Your task to perform on an android device: Go to Google Image 0: 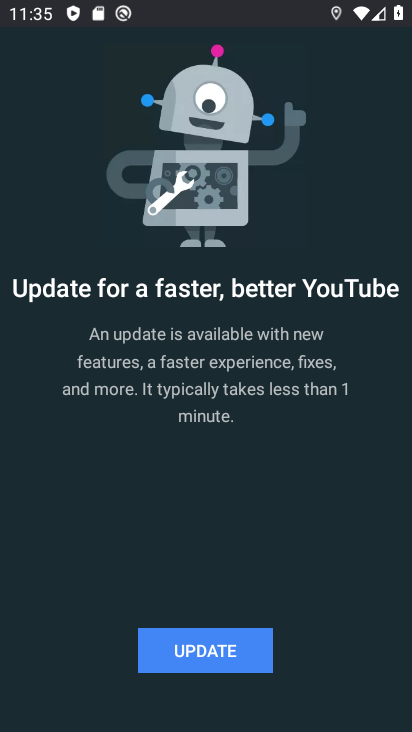
Step 0: press back button
Your task to perform on an android device: Go to Google Image 1: 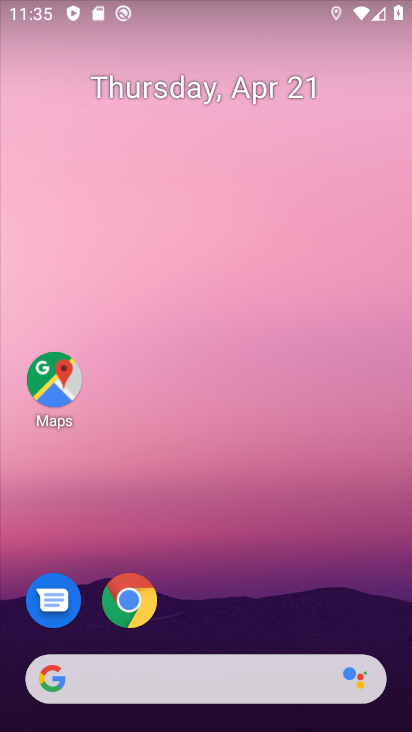
Step 1: drag from (391, 614) to (307, 135)
Your task to perform on an android device: Go to Google Image 2: 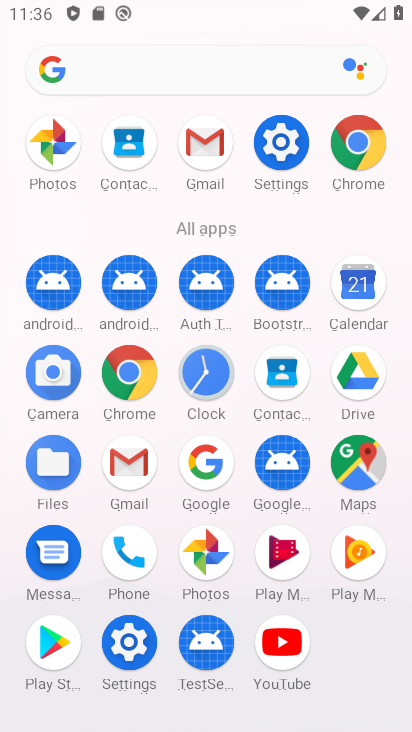
Step 2: click (205, 439)
Your task to perform on an android device: Go to Google Image 3: 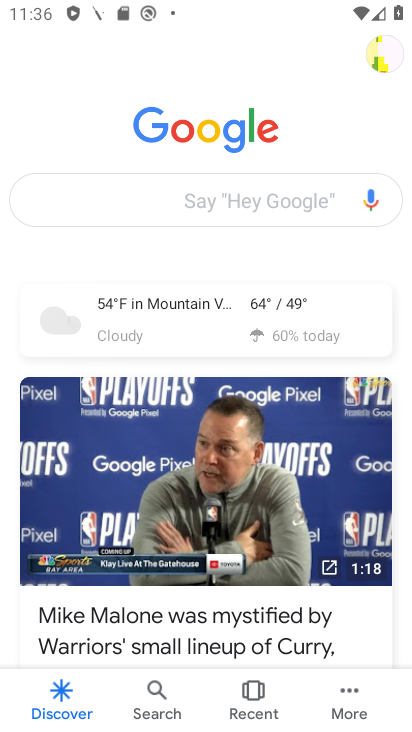
Step 3: task complete